Your task to perform on an android device: toggle improve location accuracy Image 0: 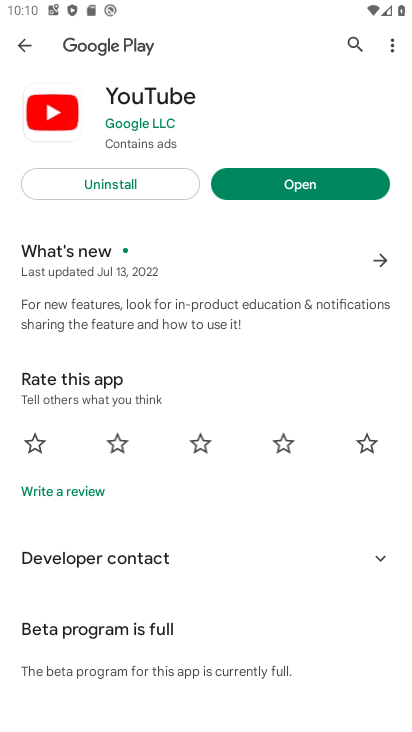
Step 0: press home button
Your task to perform on an android device: toggle improve location accuracy Image 1: 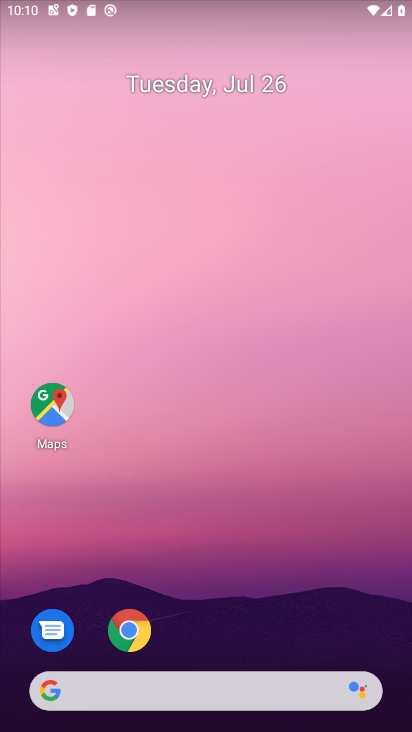
Step 1: drag from (387, 644) to (327, 114)
Your task to perform on an android device: toggle improve location accuracy Image 2: 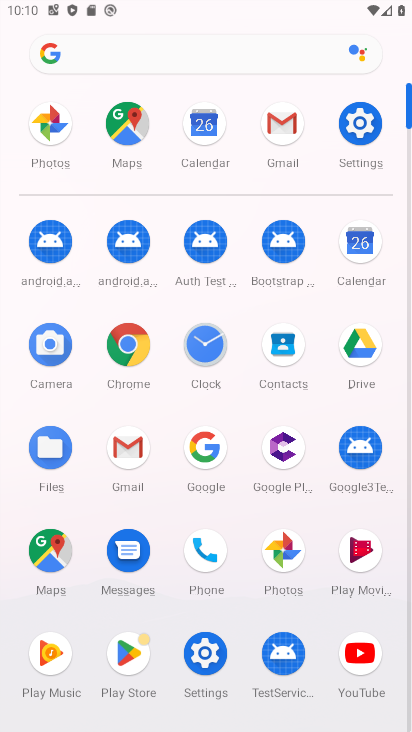
Step 2: click (209, 653)
Your task to perform on an android device: toggle improve location accuracy Image 3: 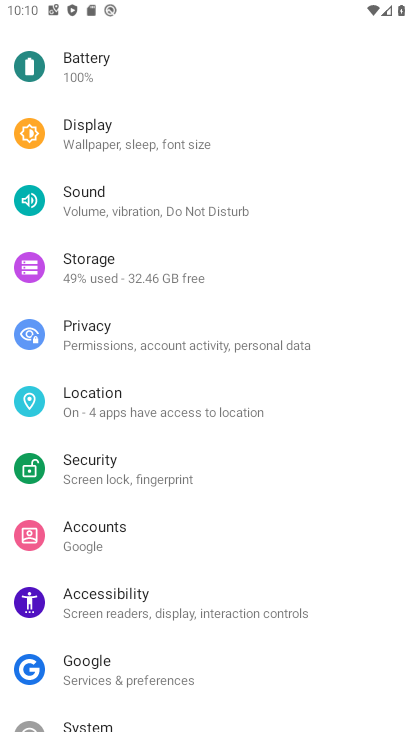
Step 3: click (111, 390)
Your task to perform on an android device: toggle improve location accuracy Image 4: 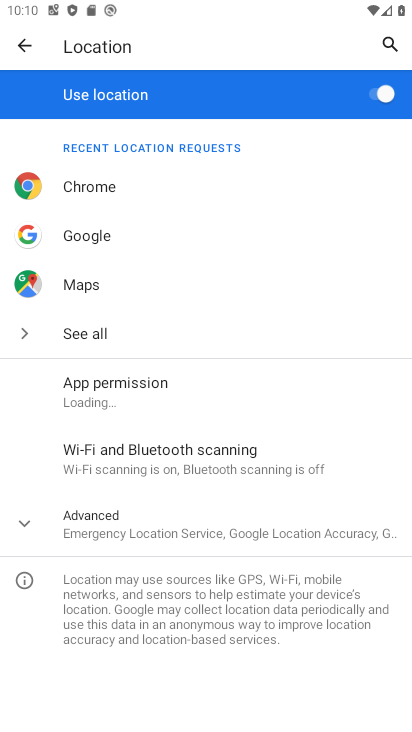
Step 4: click (18, 521)
Your task to perform on an android device: toggle improve location accuracy Image 5: 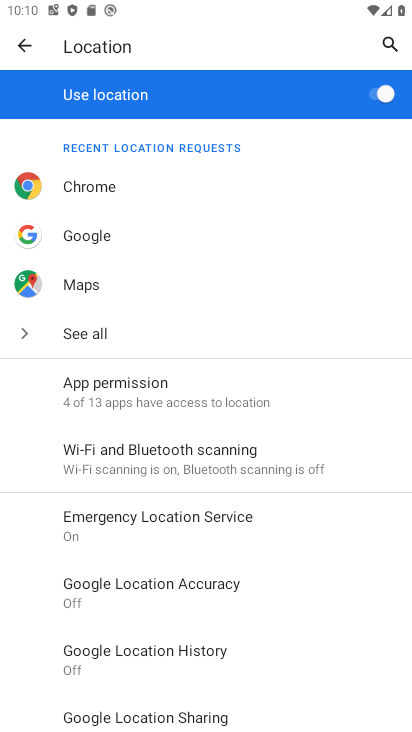
Step 5: click (146, 587)
Your task to perform on an android device: toggle improve location accuracy Image 6: 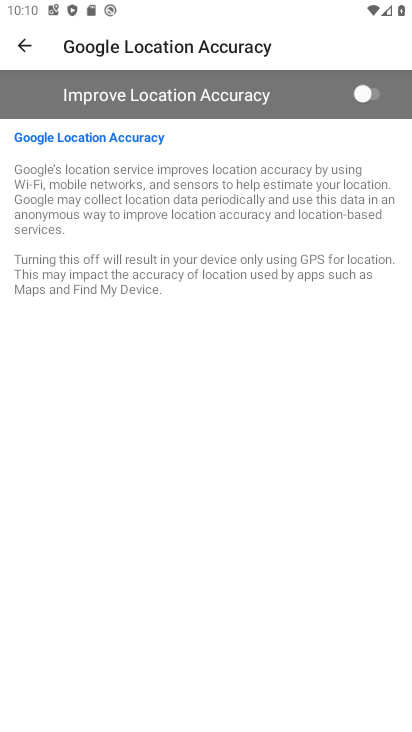
Step 6: click (374, 96)
Your task to perform on an android device: toggle improve location accuracy Image 7: 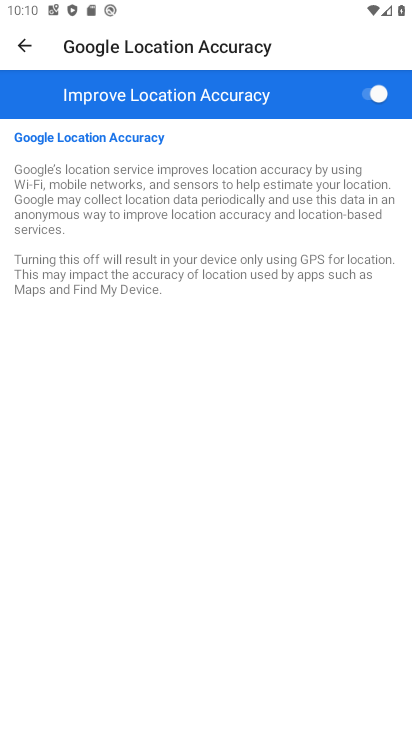
Step 7: task complete